Your task to perform on an android device: Open notification settings Image 0: 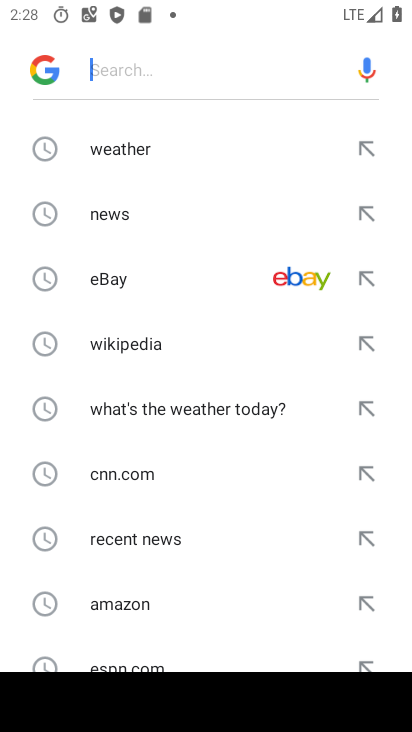
Step 0: press home button
Your task to perform on an android device: Open notification settings Image 1: 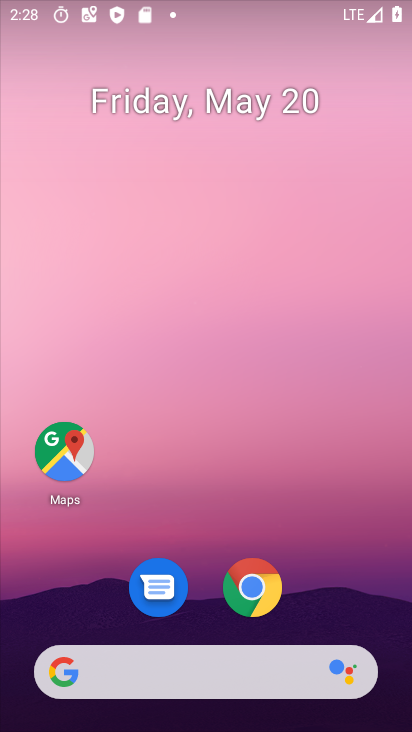
Step 1: drag from (263, 442) to (233, 74)
Your task to perform on an android device: Open notification settings Image 2: 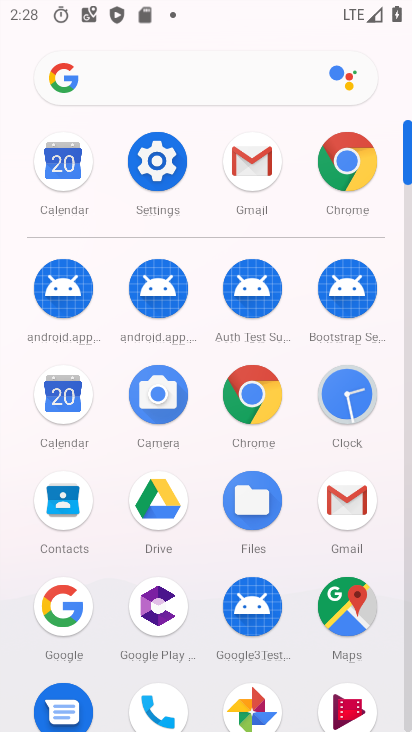
Step 2: click (152, 155)
Your task to perform on an android device: Open notification settings Image 3: 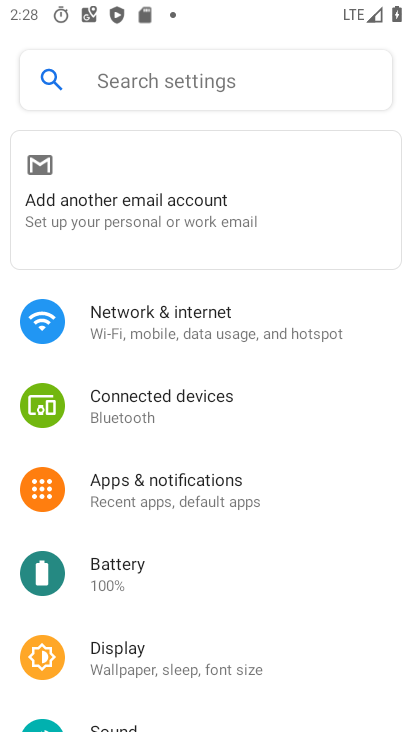
Step 3: click (179, 344)
Your task to perform on an android device: Open notification settings Image 4: 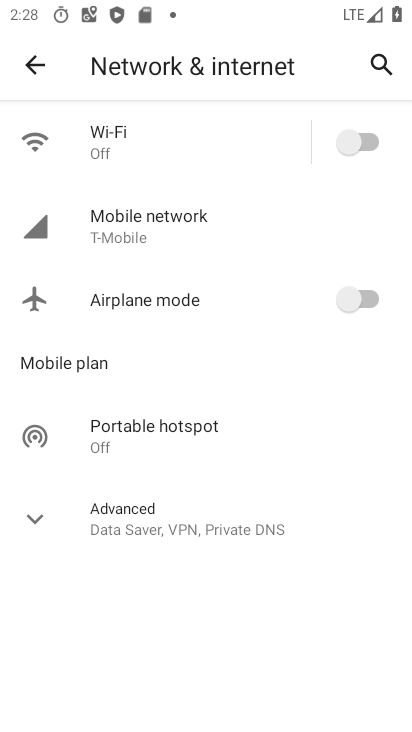
Step 4: click (43, 69)
Your task to perform on an android device: Open notification settings Image 5: 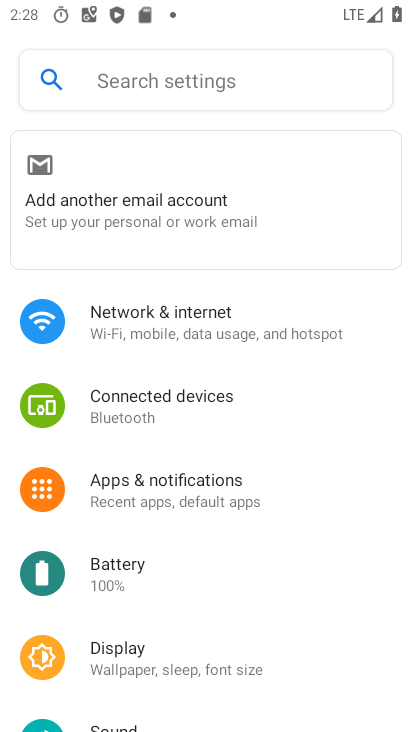
Step 5: click (196, 501)
Your task to perform on an android device: Open notification settings Image 6: 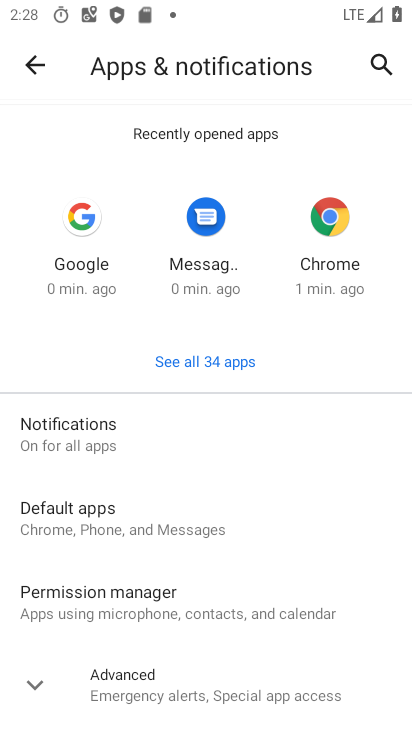
Step 6: click (152, 424)
Your task to perform on an android device: Open notification settings Image 7: 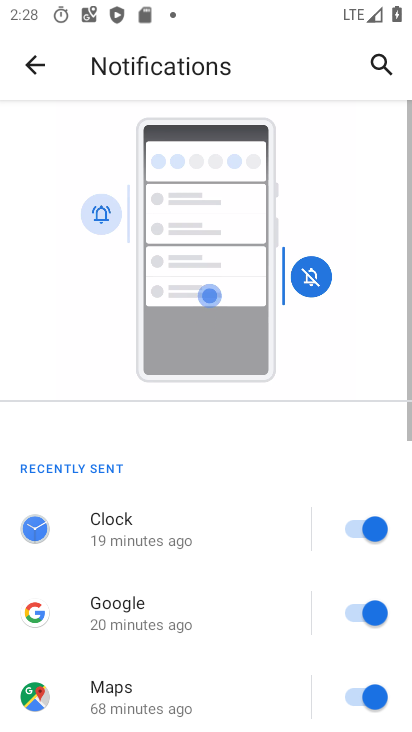
Step 7: task complete